Your task to perform on an android device: Open the map Image 0: 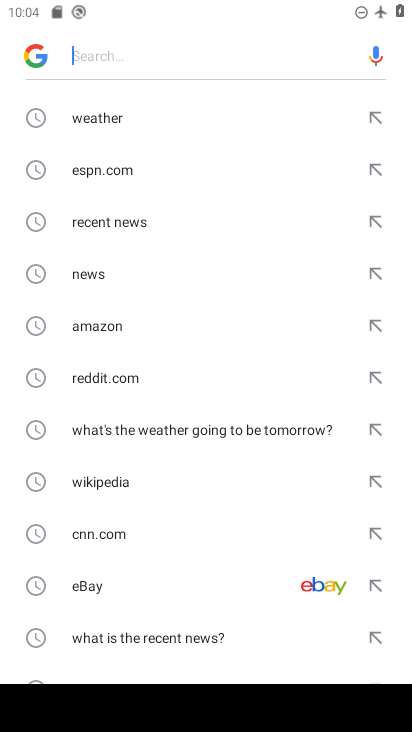
Step 0: press home button
Your task to perform on an android device: Open the map Image 1: 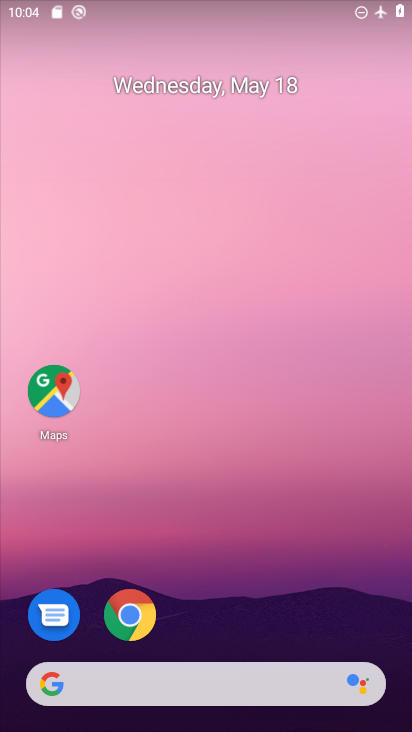
Step 1: click (55, 392)
Your task to perform on an android device: Open the map Image 2: 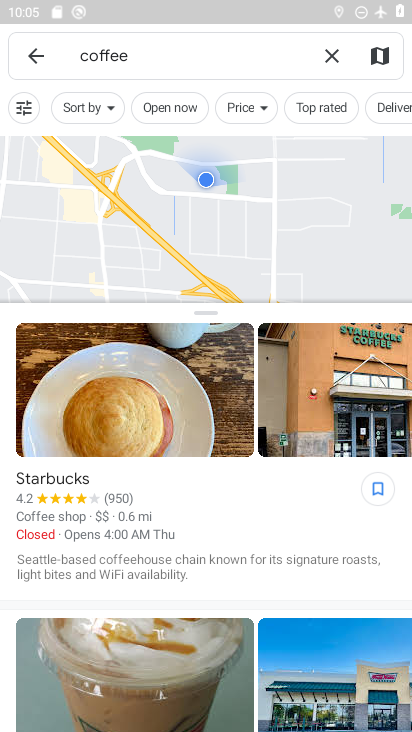
Step 2: task complete